Your task to perform on an android device: Open Android settings Image 0: 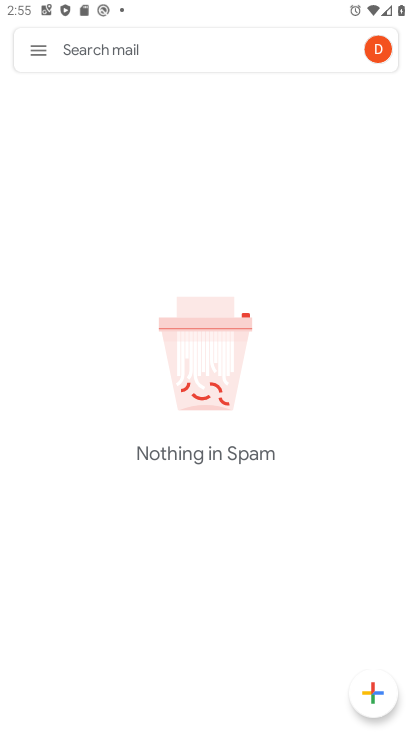
Step 0: press home button
Your task to perform on an android device: Open Android settings Image 1: 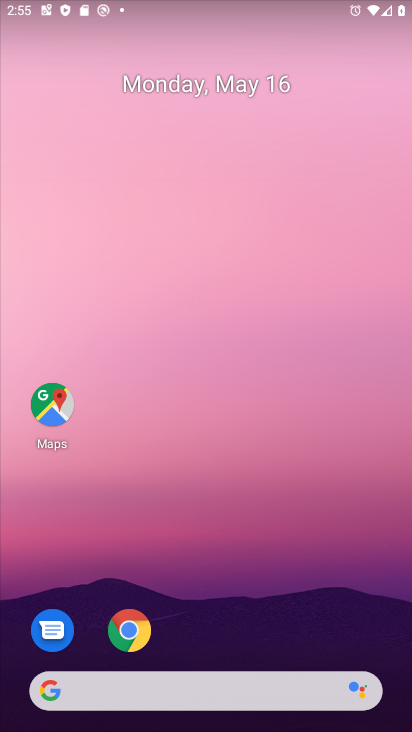
Step 1: drag from (214, 652) to (213, 144)
Your task to perform on an android device: Open Android settings Image 2: 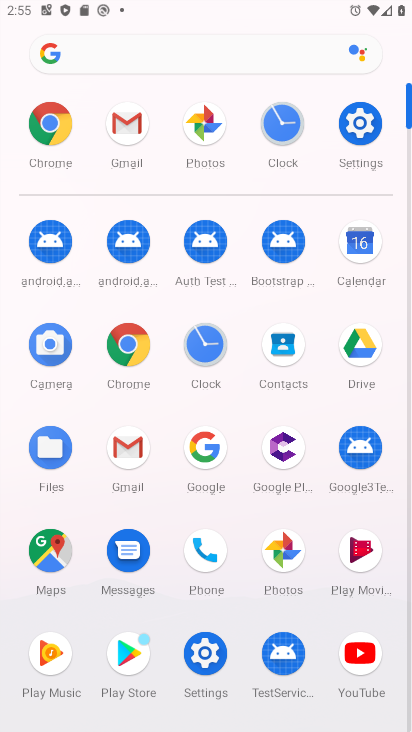
Step 2: click (350, 123)
Your task to perform on an android device: Open Android settings Image 3: 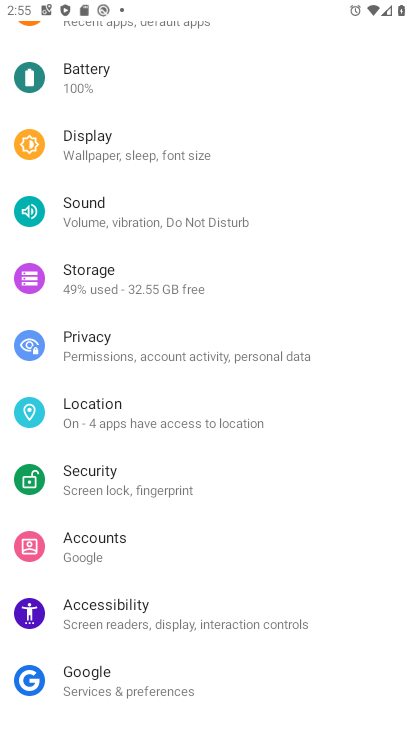
Step 3: drag from (190, 667) to (213, 250)
Your task to perform on an android device: Open Android settings Image 4: 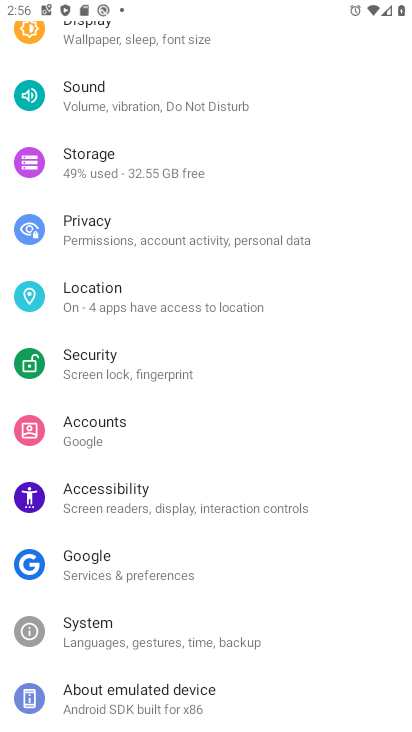
Step 4: click (213, 700)
Your task to perform on an android device: Open Android settings Image 5: 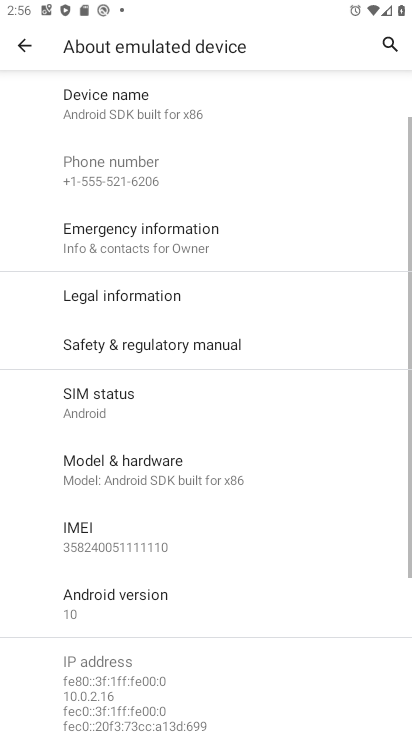
Step 5: click (136, 605)
Your task to perform on an android device: Open Android settings Image 6: 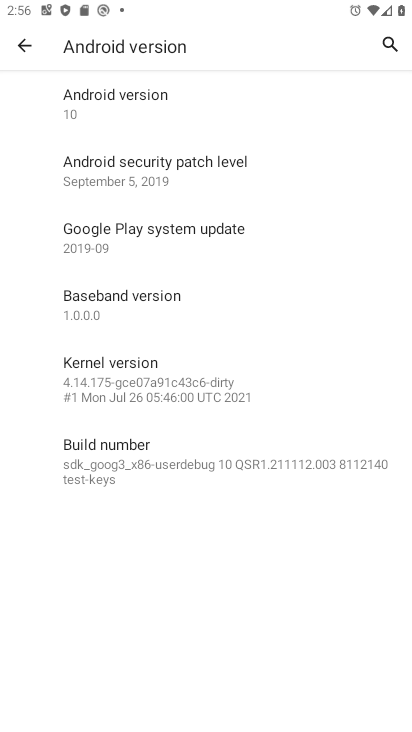
Step 6: task complete